Your task to perform on an android device: Search for Mexican restaurants on Maps Image 0: 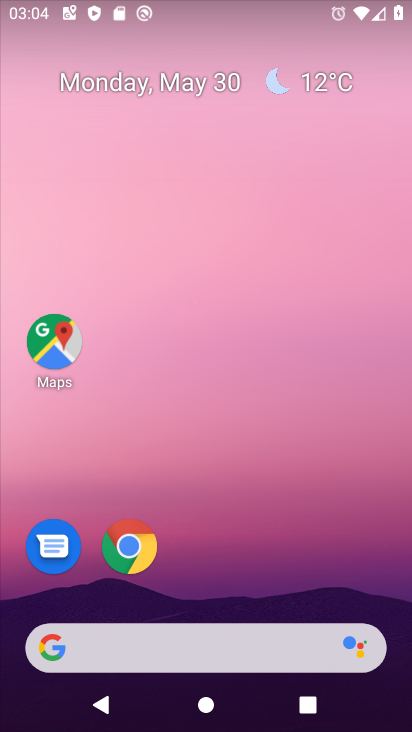
Step 0: click (55, 340)
Your task to perform on an android device: Search for Mexican restaurants on Maps Image 1: 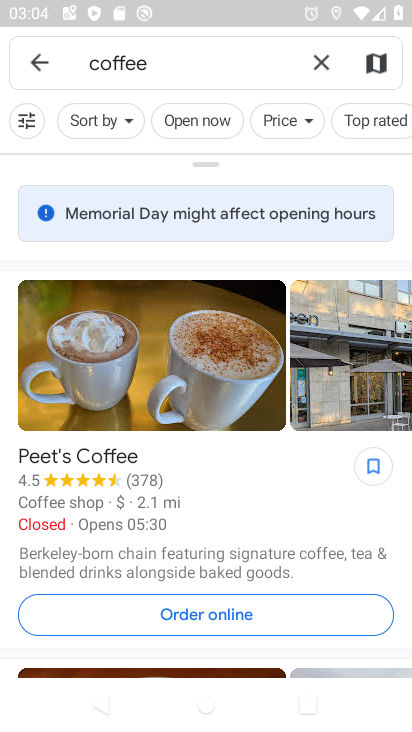
Step 1: click (315, 61)
Your task to perform on an android device: Search for Mexican restaurants on Maps Image 2: 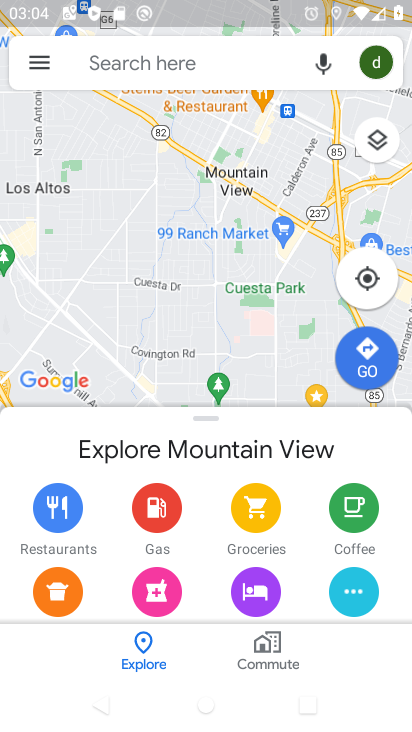
Step 2: click (111, 46)
Your task to perform on an android device: Search for Mexican restaurants on Maps Image 3: 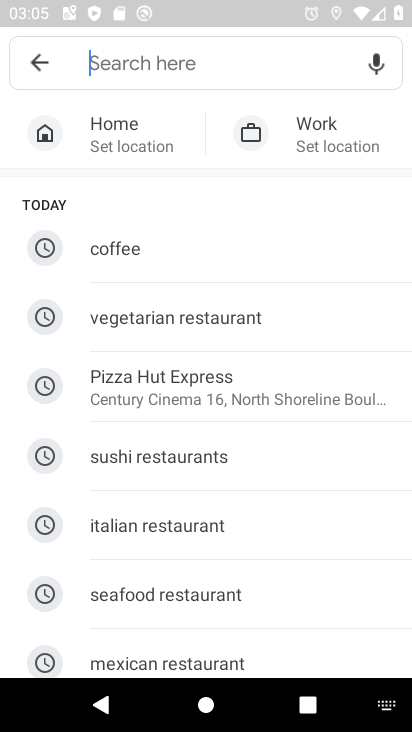
Step 3: click (165, 656)
Your task to perform on an android device: Search for Mexican restaurants on Maps Image 4: 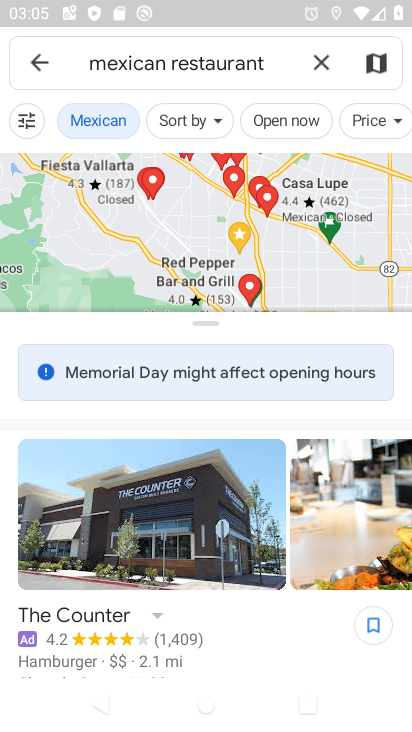
Step 4: task complete